Your task to perform on an android device: open sync settings in chrome Image 0: 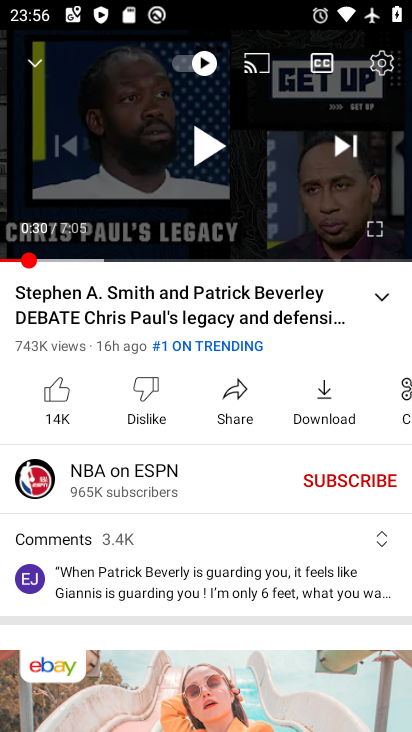
Step 0: press back button
Your task to perform on an android device: open sync settings in chrome Image 1: 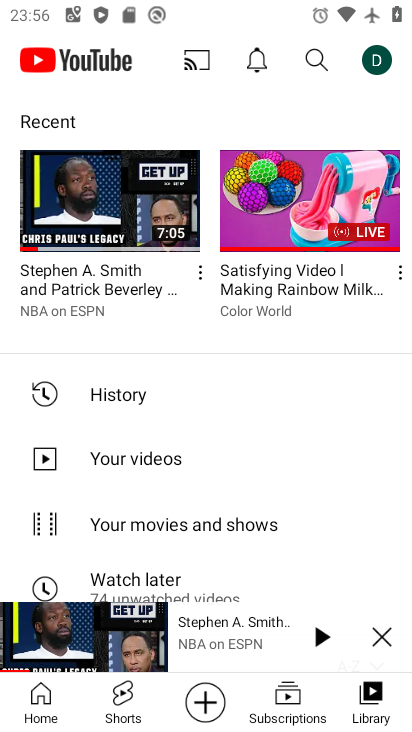
Step 1: press back button
Your task to perform on an android device: open sync settings in chrome Image 2: 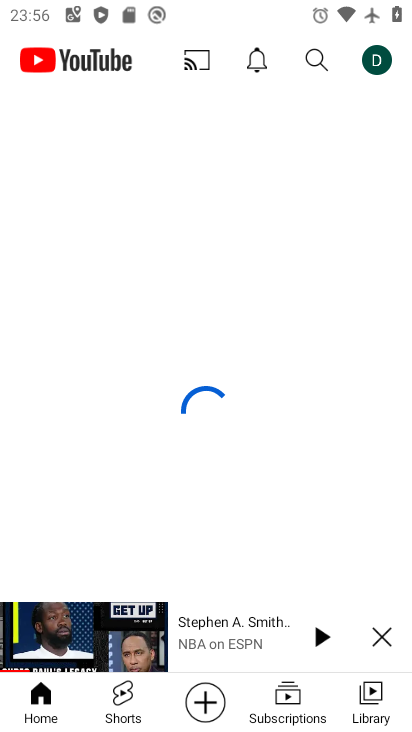
Step 2: press home button
Your task to perform on an android device: open sync settings in chrome Image 3: 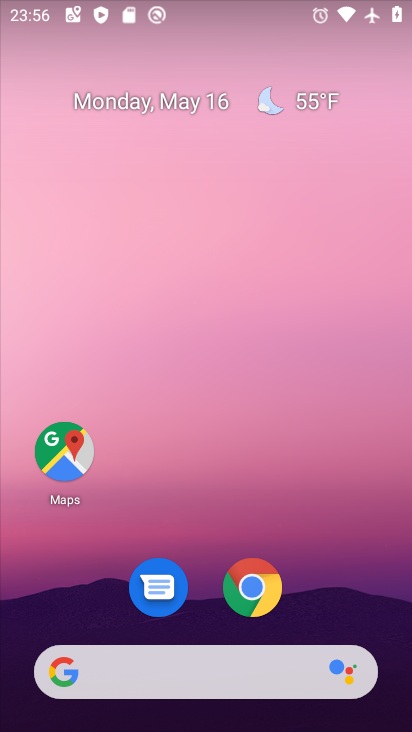
Step 3: drag from (333, 555) to (270, 43)
Your task to perform on an android device: open sync settings in chrome Image 4: 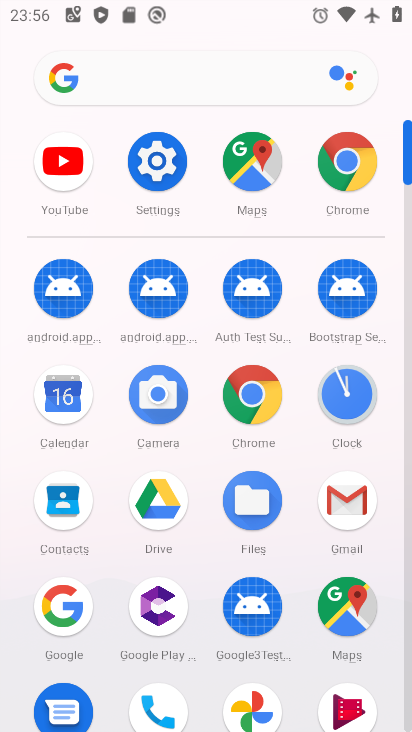
Step 4: drag from (11, 516) to (0, 216)
Your task to perform on an android device: open sync settings in chrome Image 5: 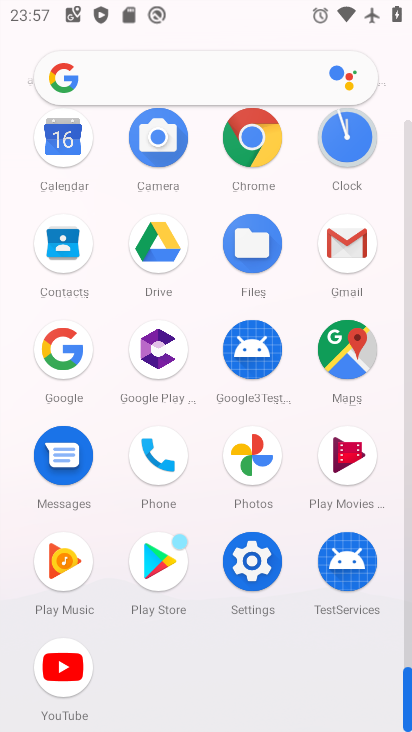
Step 5: click (258, 138)
Your task to perform on an android device: open sync settings in chrome Image 6: 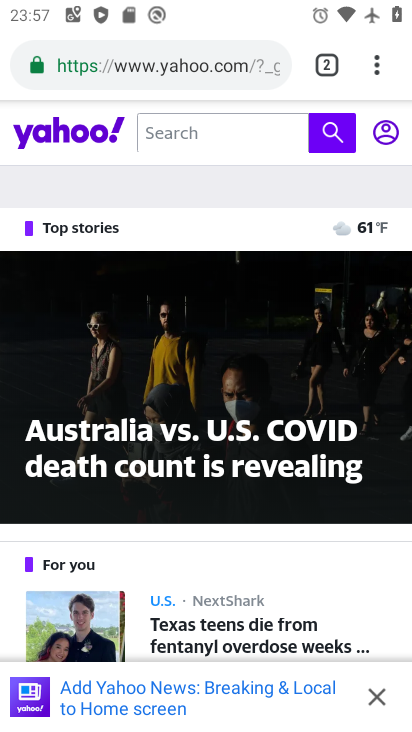
Step 6: drag from (377, 63) to (168, 626)
Your task to perform on an android device: open sync settings in chrome Image 7: 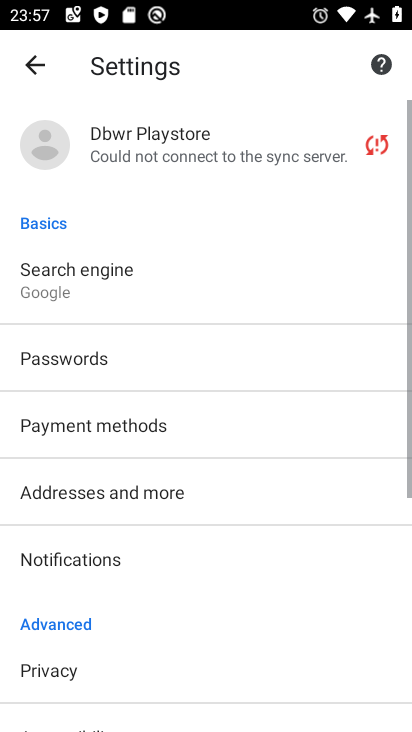
Step 7: click (178, 145)
Your task to perform on an android device: open sync settings in chrome Image 8: 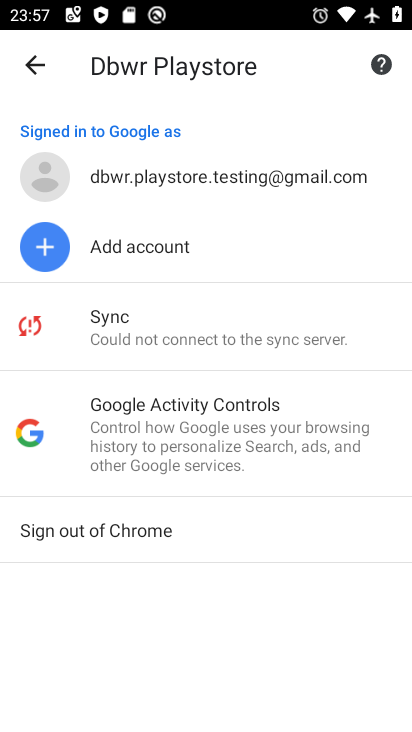
Step 8: click (117, 335)
Your task to perform on an android device: open sync settings in chrome Image 9: 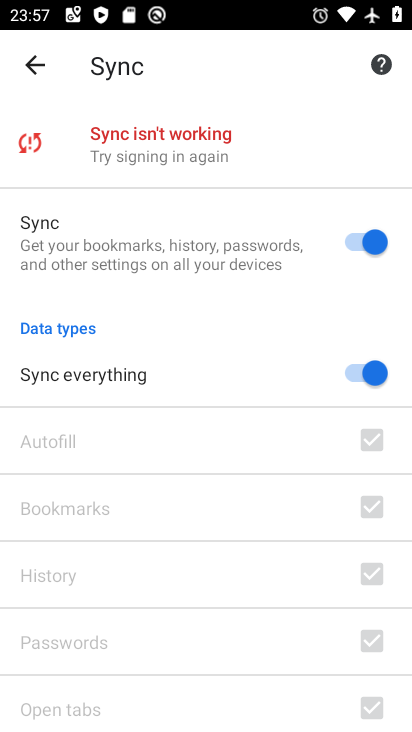
Step 9: task complete